Your task to perform on an android device: change text size in settings app Image 0: 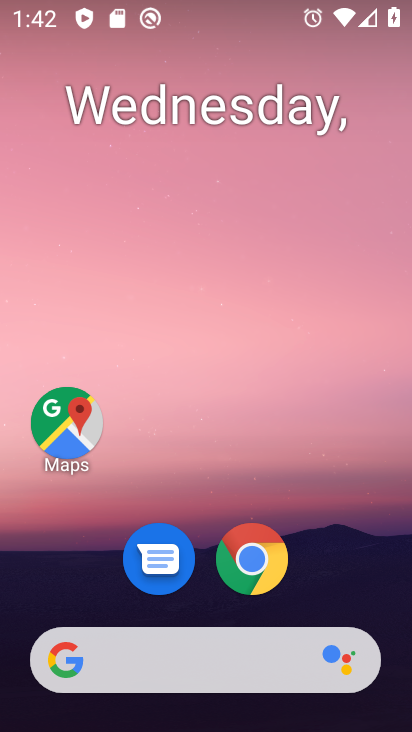
Step 0: drag from (373, 599) to (271, 72)
Your task to perform on an android device: change text size in settings app Image 1: 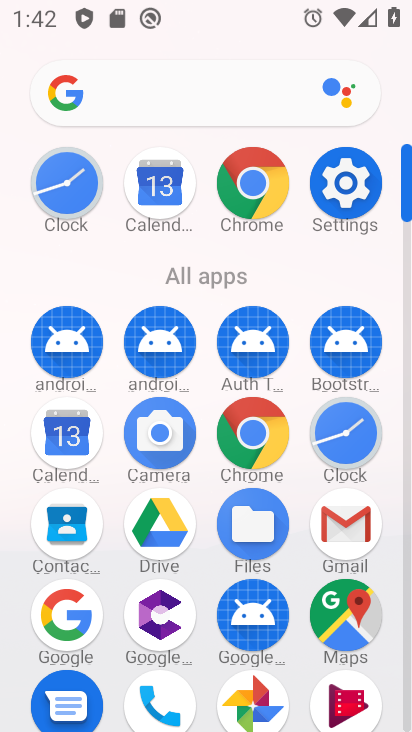
Step 1: click (356, 166)
Your task to perform on an android device: change text size in settings app Image 2: 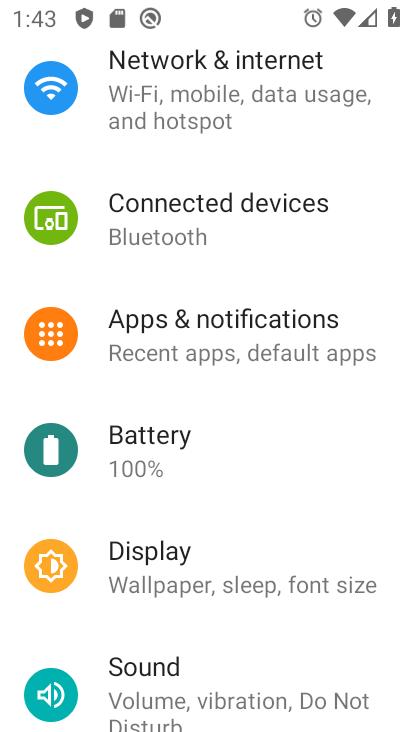
Step 2: click (215, 552)
Your task to perform on an android device: change text size in settings app Image 3: 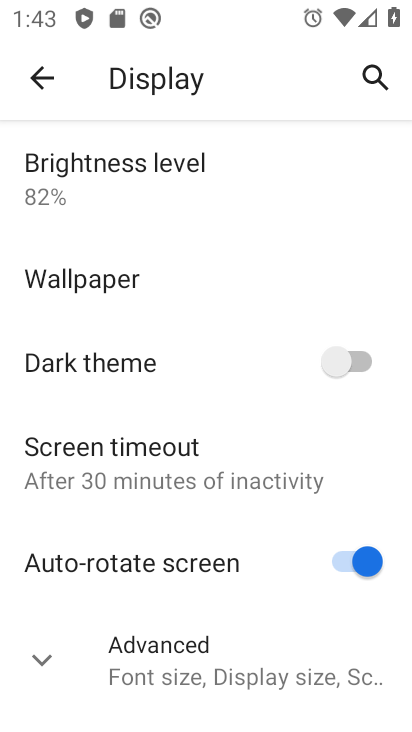
Step 3: click (250, 663)
Your task to perform on an android device: change text size in settings app Image 4: 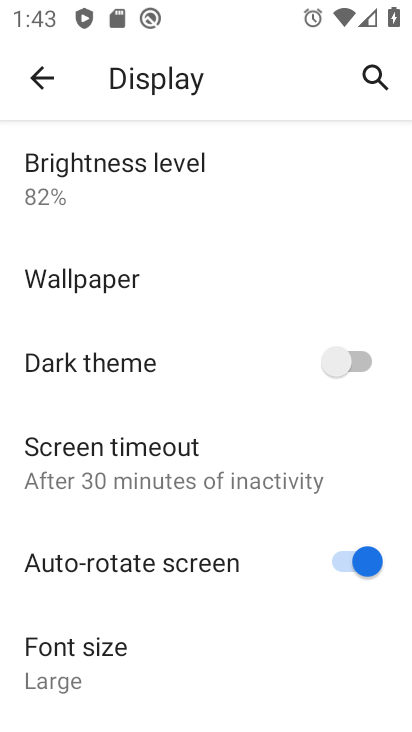
Step 4: drag from (244, 625) to (208, 251)
Your task to perform on an android device: change text size in settings app Image 5: 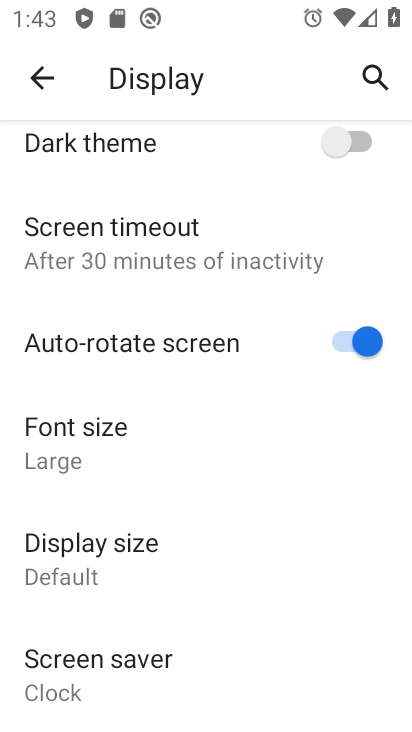
Step 5: click (227, 458)
Your task to perform on an android device: change text size in settings app Image 6: 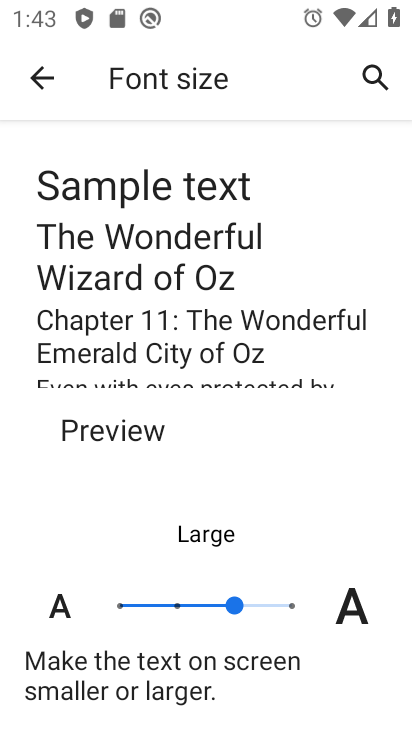
Step 6: click (292, 599)
Your task to perform on an android device: change text size in settings app Image 7: 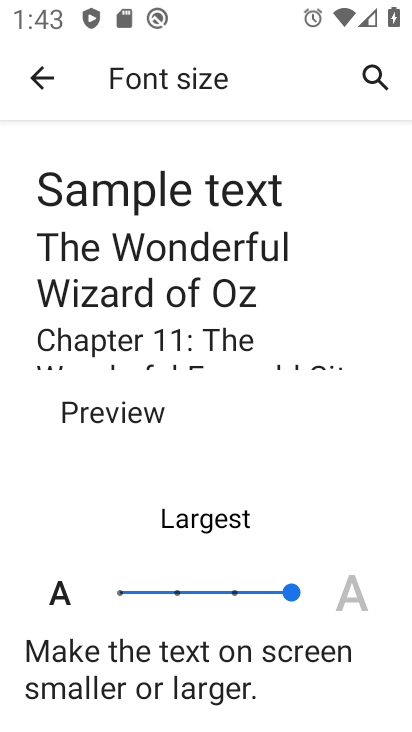
Step 7: task complete